Your task to perform on an android device: turn off location history Image 0: 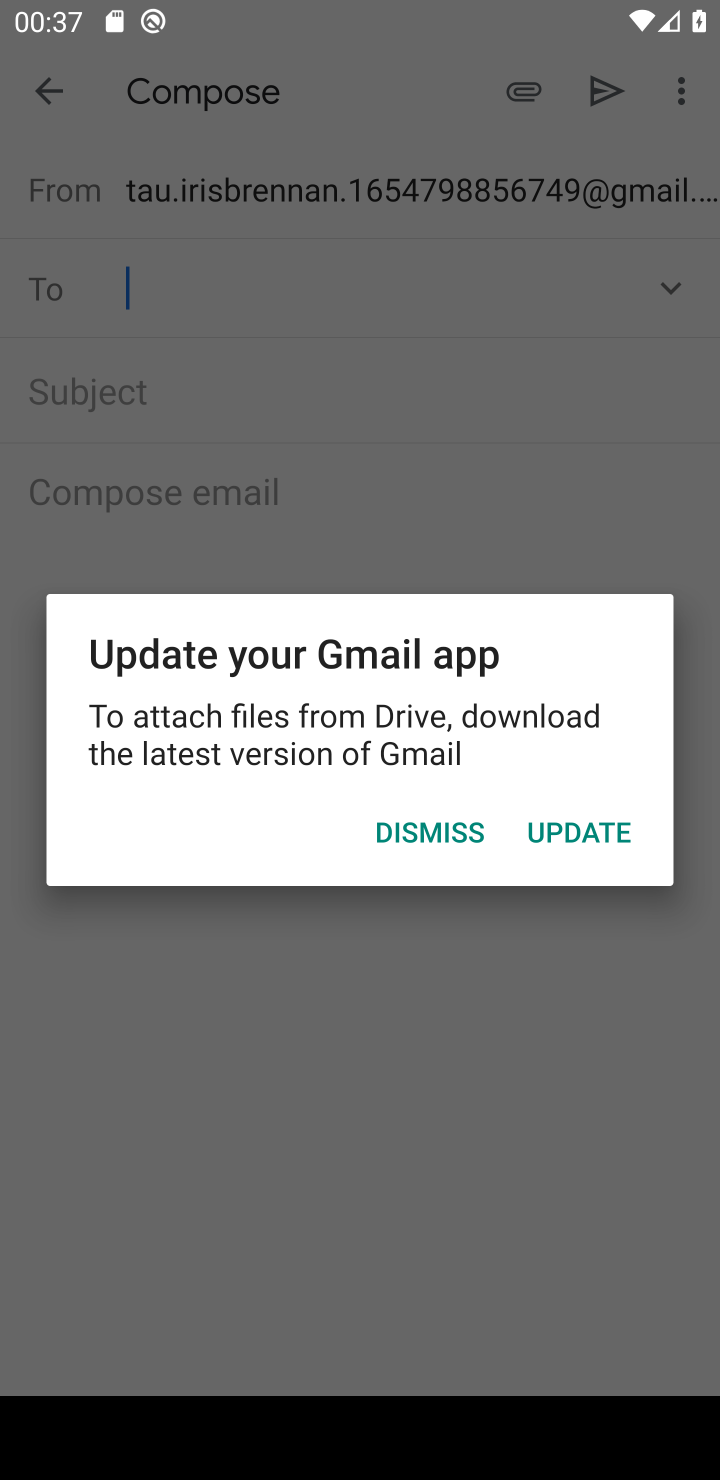
Step 0: press home button
Your task to perform on an android device: turn off location history Image 1: 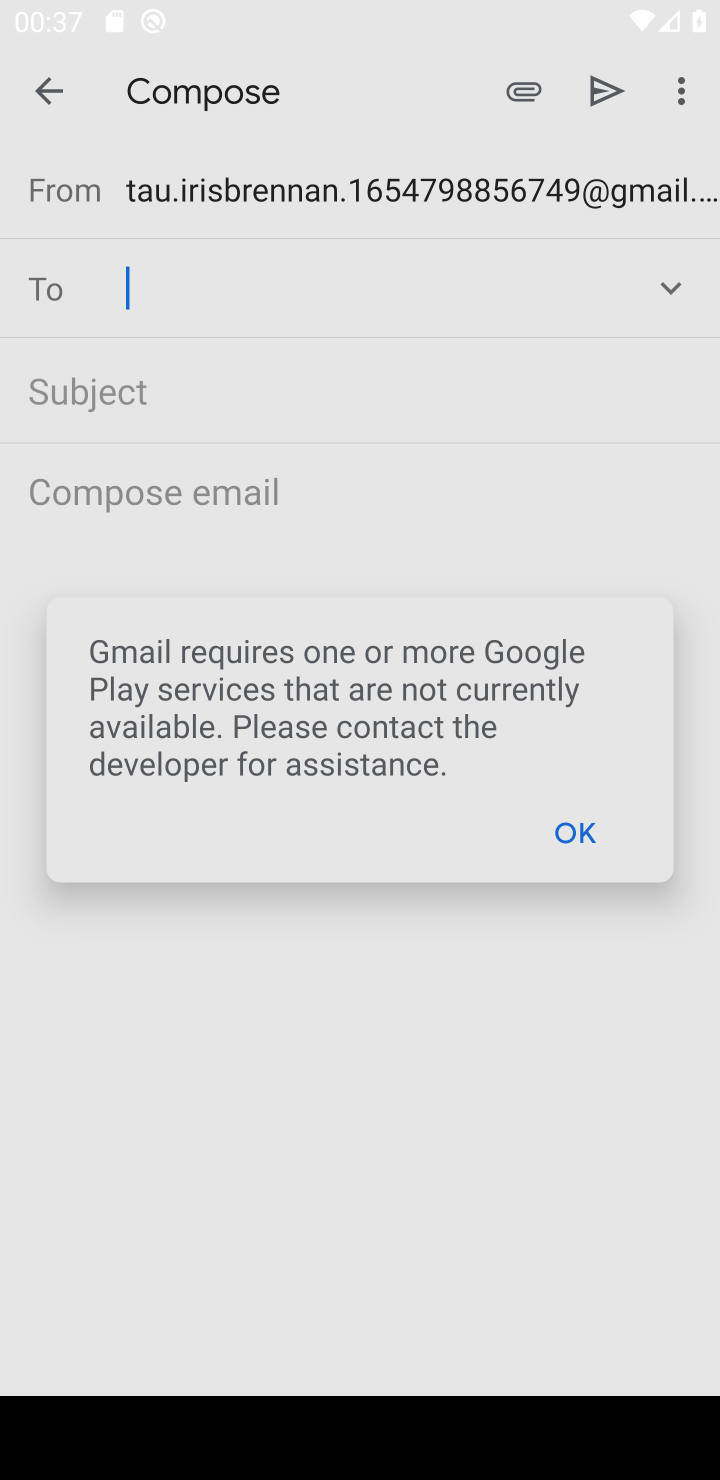
Step 1: drag from (119, 1307) to (519, 309)
Your task to perform on an android device: turn off location history Image 2: 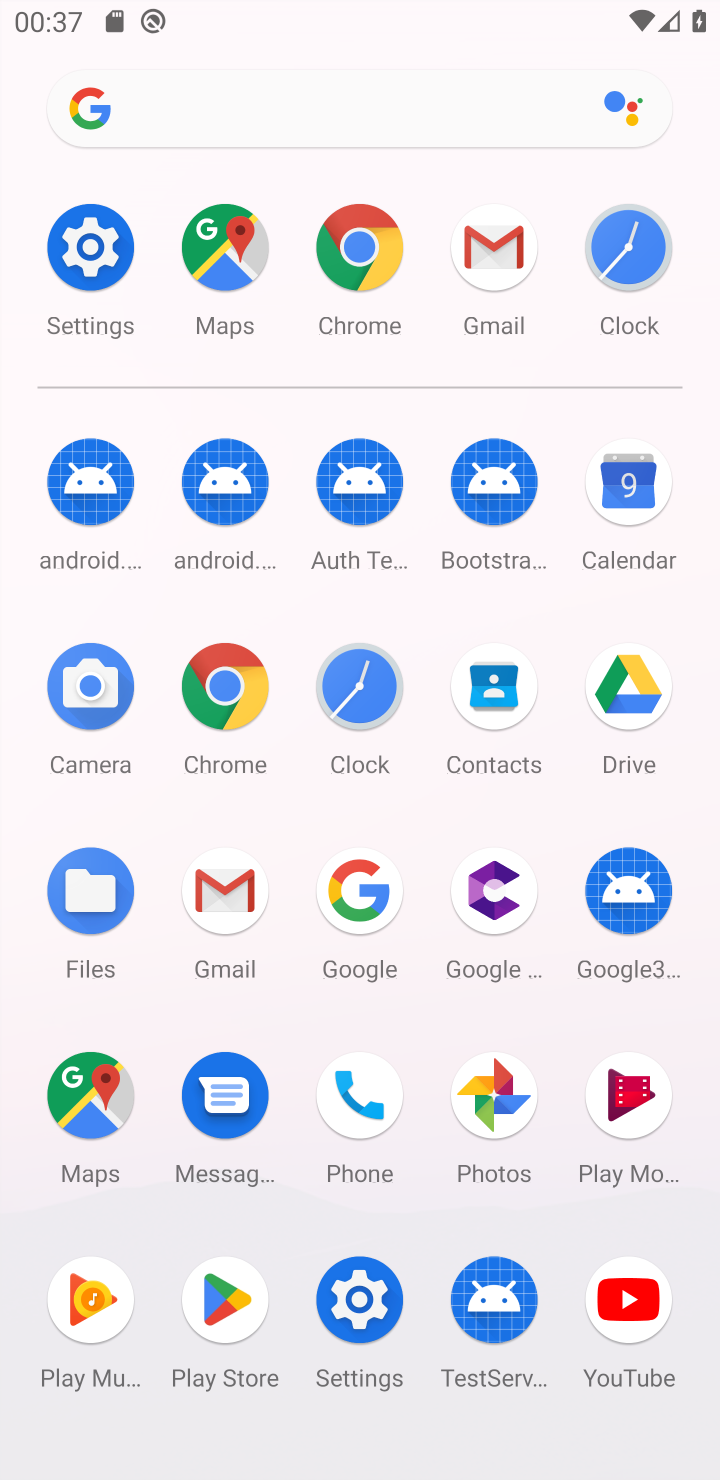
Step 2: click (361, 1246)
Your task to perform on an android device: turn off location history Image 3: 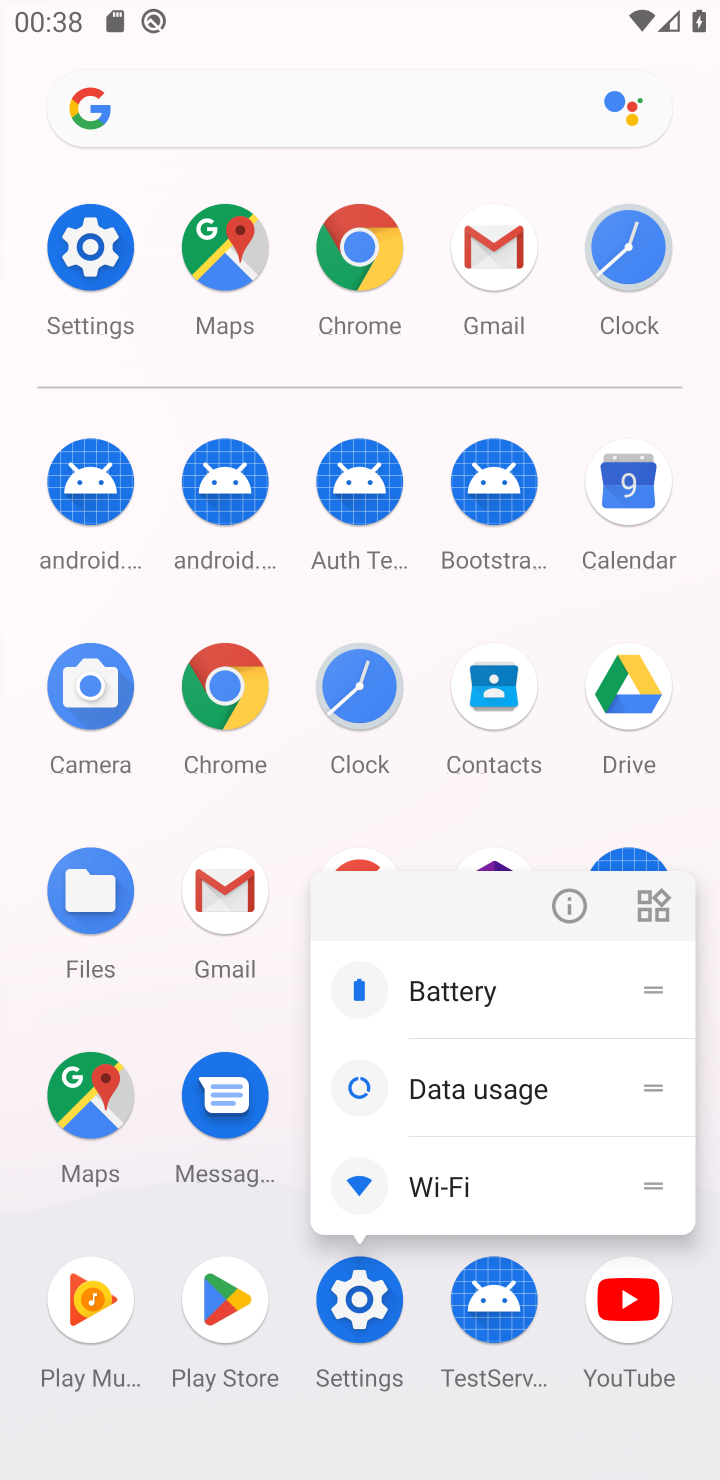
Step 3: click (144, 806)
Your task to perform on an android device: turn off location history Image 4: 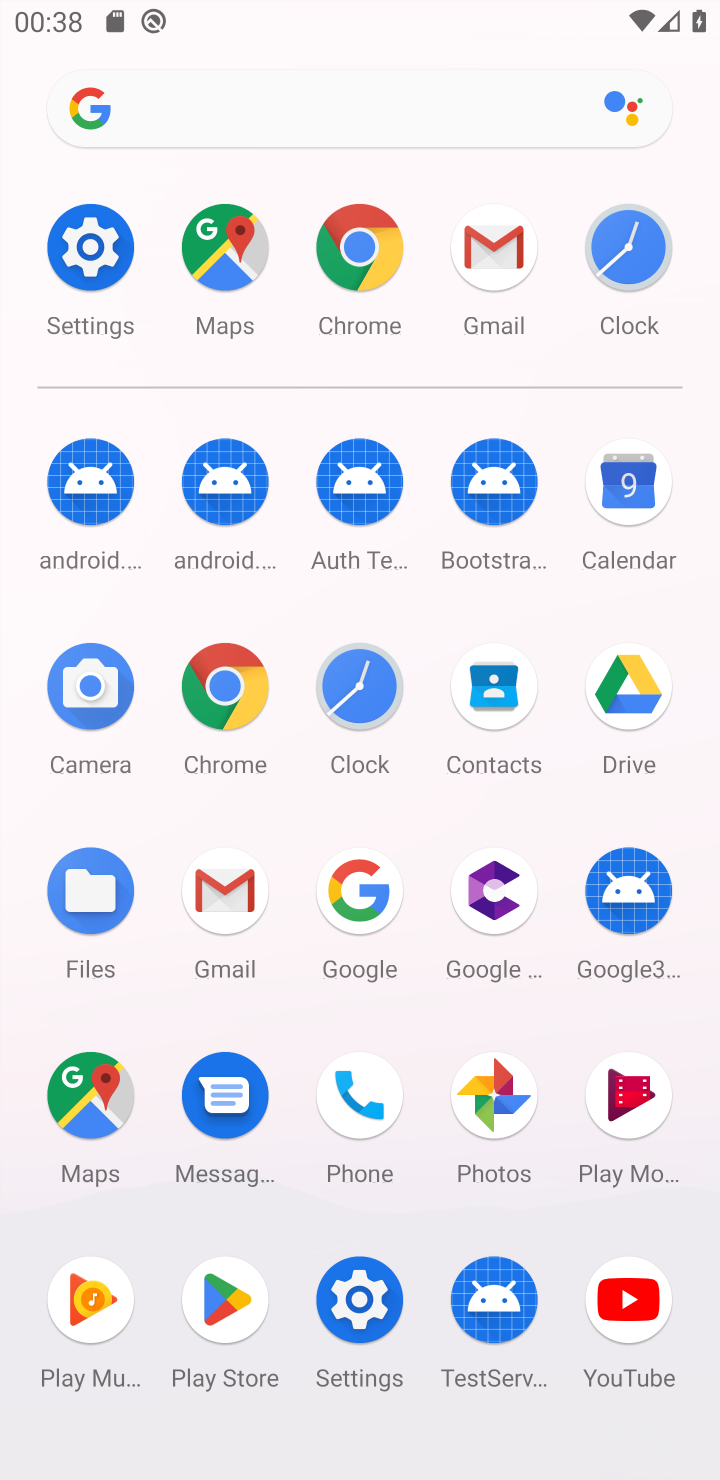
Step 4: click (80, 247)
Your task to perform on an android device: turn off location history Image 5: 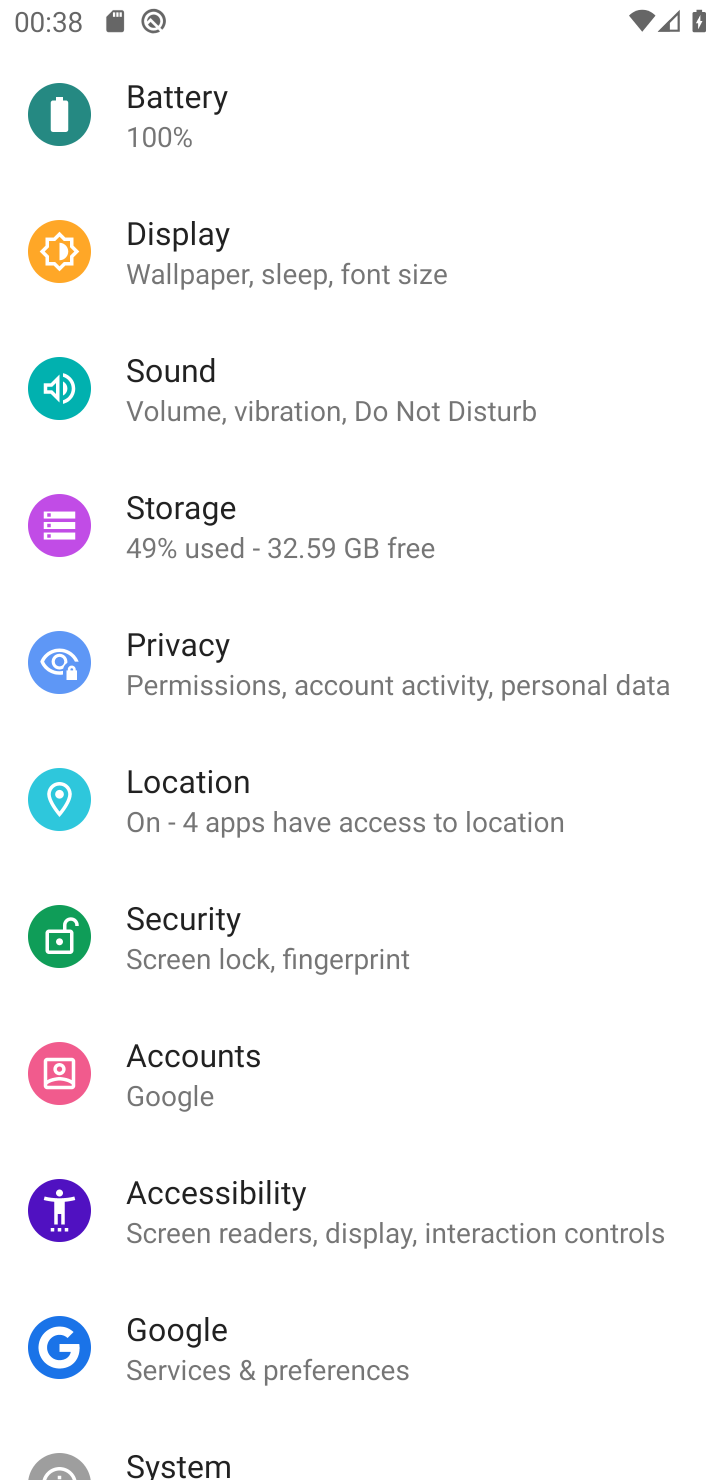
Step 5: click (241, 816)
Your task to perform on an android device: turn off location history Image 6: 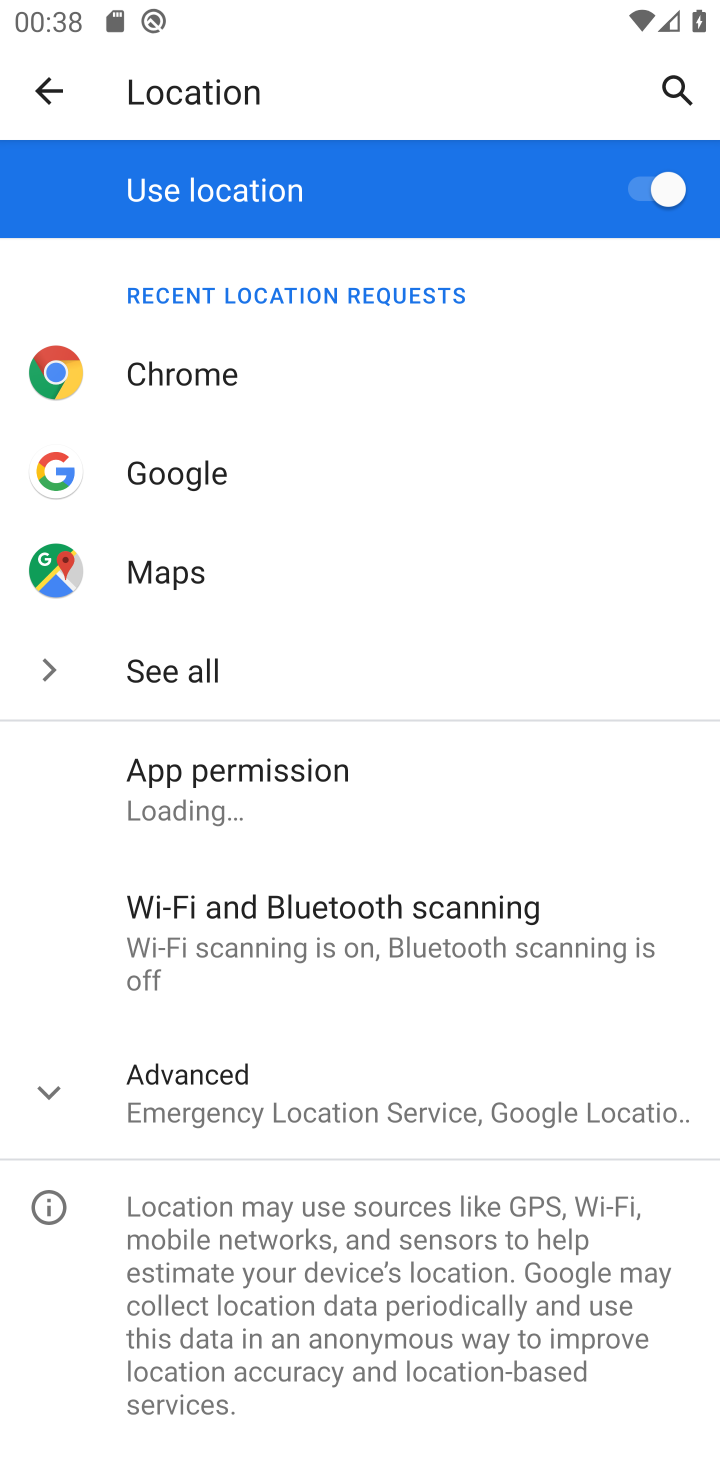
Step 6: click (274, 1081)
Your task to perform on an android device: turn off location history Image 7: 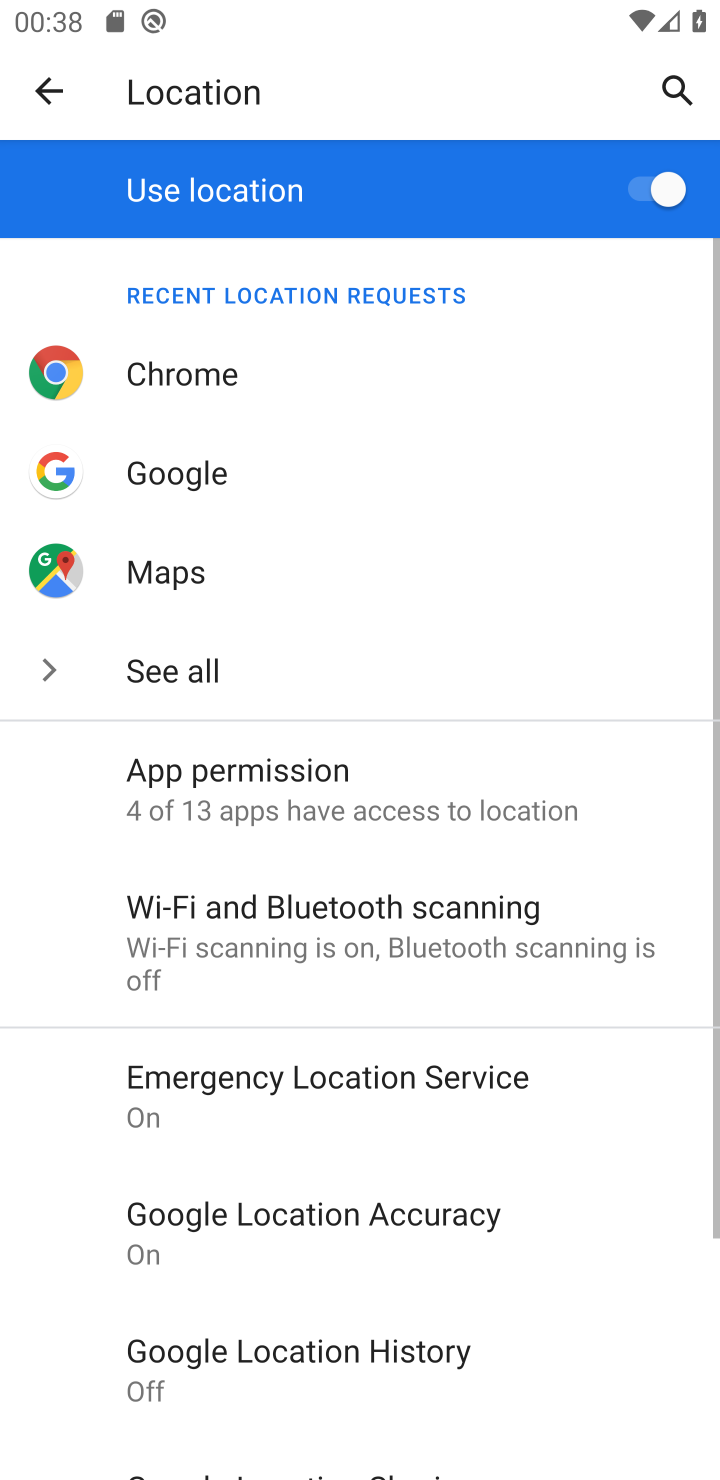
Step 7: click (341, 1384)
Your task to perform on an android device: turn off location history Image 8: 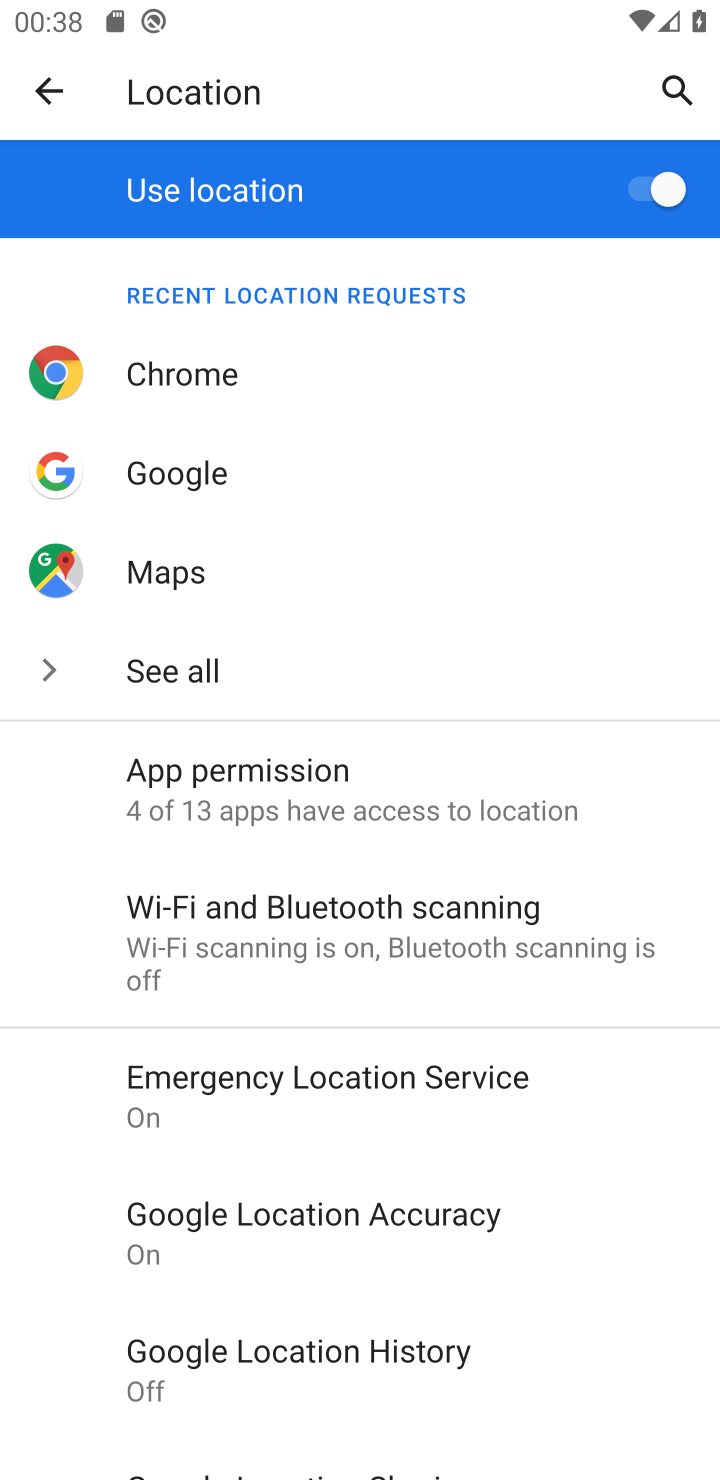
Step 8: task complete